Your task to perform on an android device: Open Chrome and go to settings Image 0: 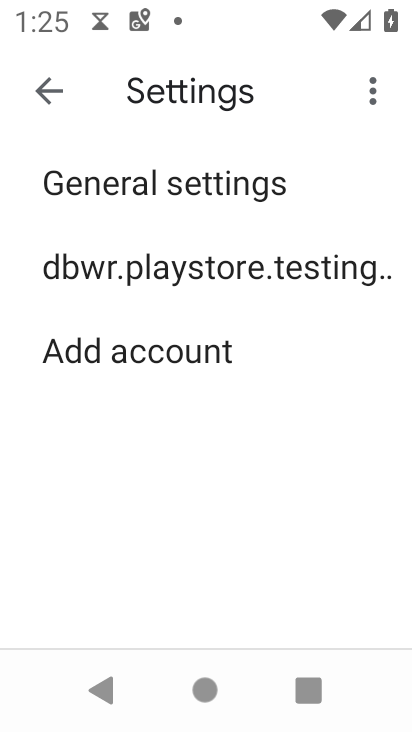
Step 0: press home button
Your task to perform on an android device: Open Chrome and go to settings Image 1: 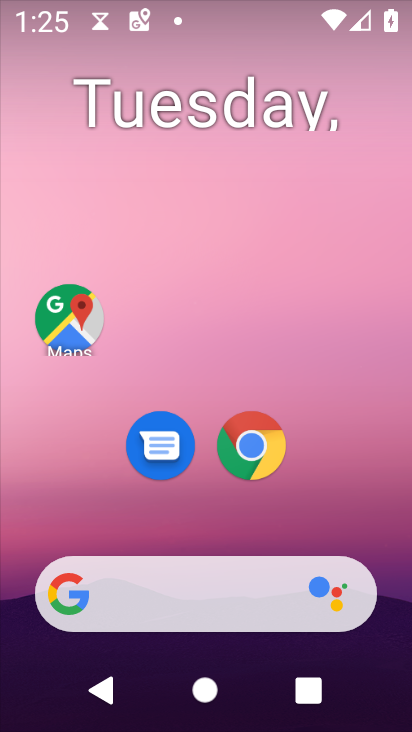
Step 1: click (257, 433)
Your task to perform on an android device: Open Chrome and go to settings Image 2: 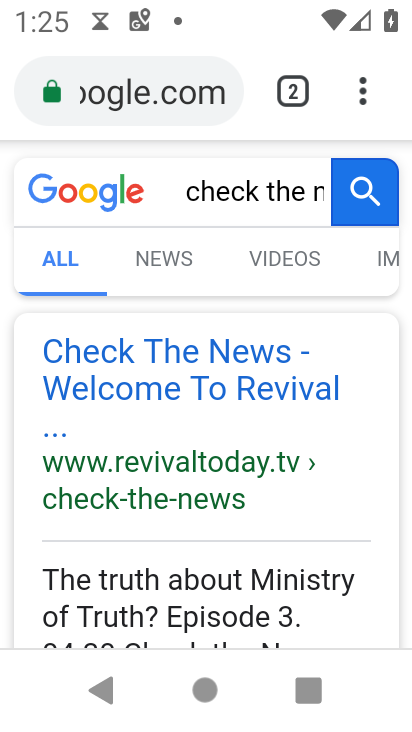
Step 2: task complete